Your task to perform on an android device: Open calendar and show me the second week of next month Image 0: 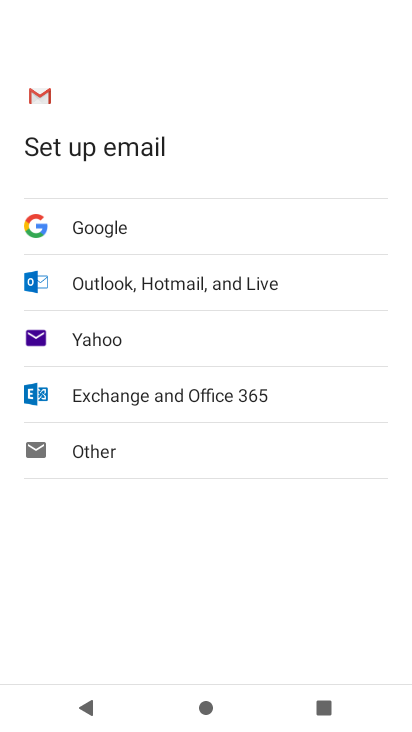
Step 0: press home button
Your task to perform on an android device: Open calendar and show me the second week of next month Image 1: 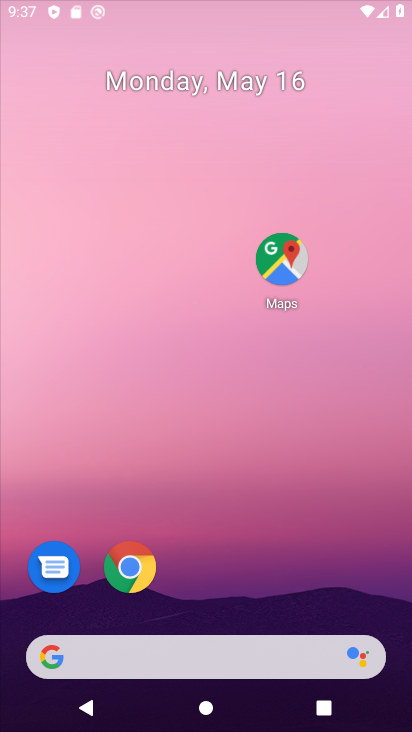
Step 1: drag from (226, 569) to (207, 84)
Your task to perform on an android device: Open calendar and show me the second week of next month Image 2: 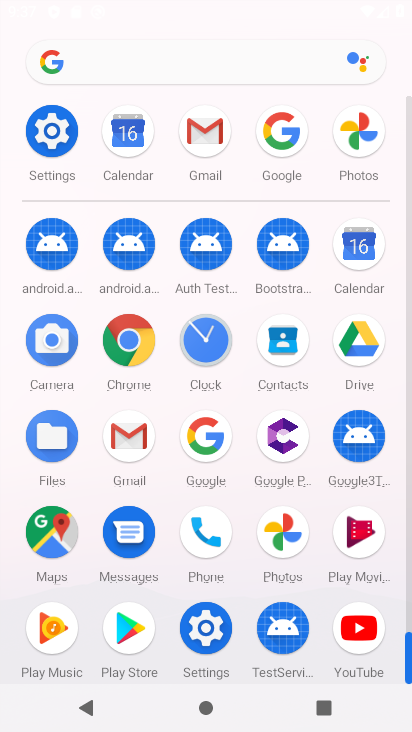
Step 2: click (360, 247)
Your task to perform on an android device: Open calendar and show me the second week of next month Image 3: 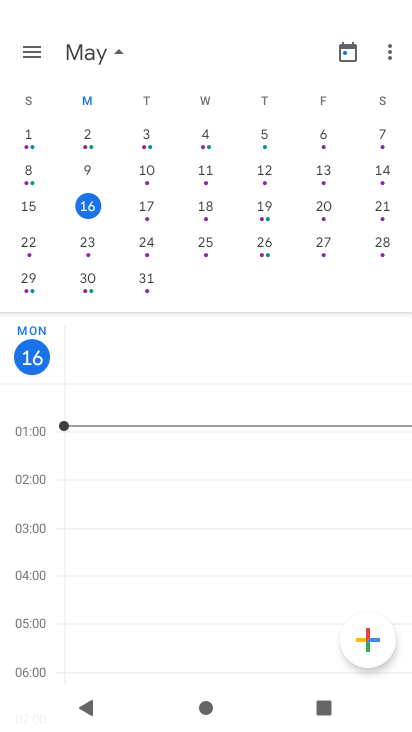
Step 3: drag from (340, 281) to (4, 181)
Your task to perform on an android device: Open calendar and show me the second week of next month Image 4: 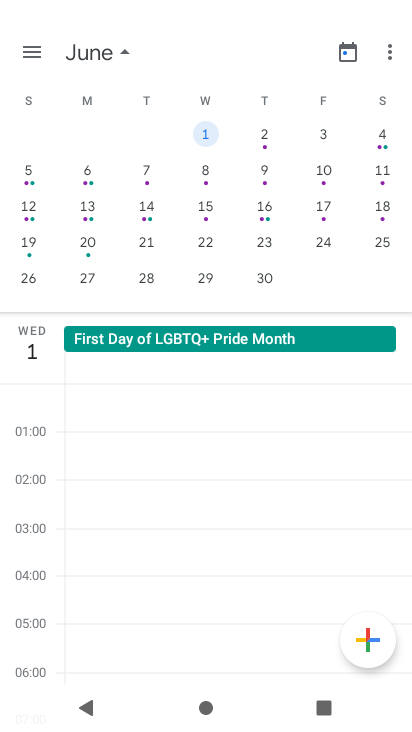
Step 4: click (266, 172)
Your task to perform on an android device: Open calendar and show me the second week of next month Image 5: 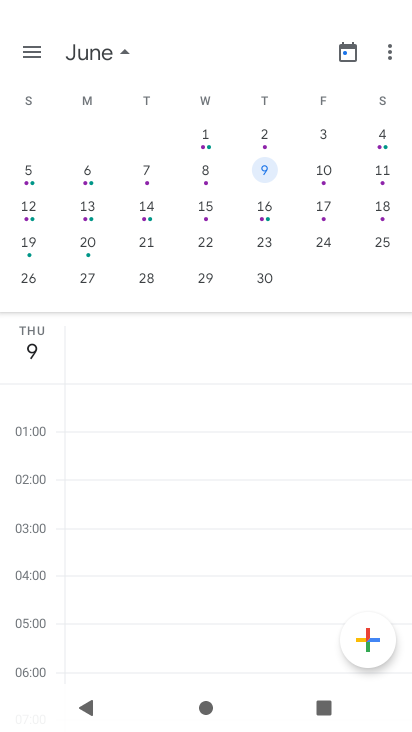
Step 5: task complete